Your task to perform on an android device: Open Wikipedia Image 0: 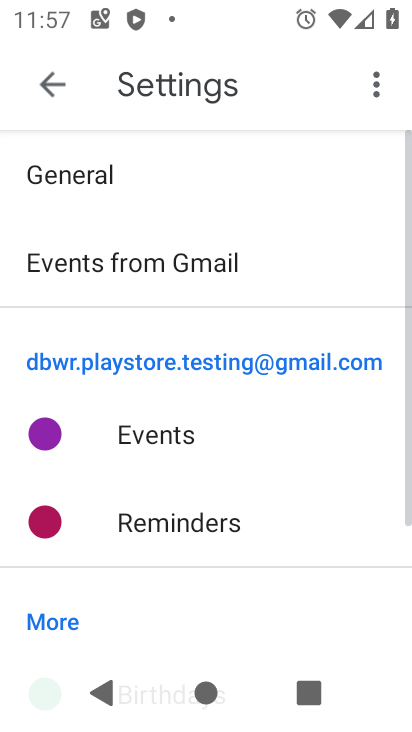
Step 0: press home button
Your task to perform on an android device: Open Wikipedia Image 1: 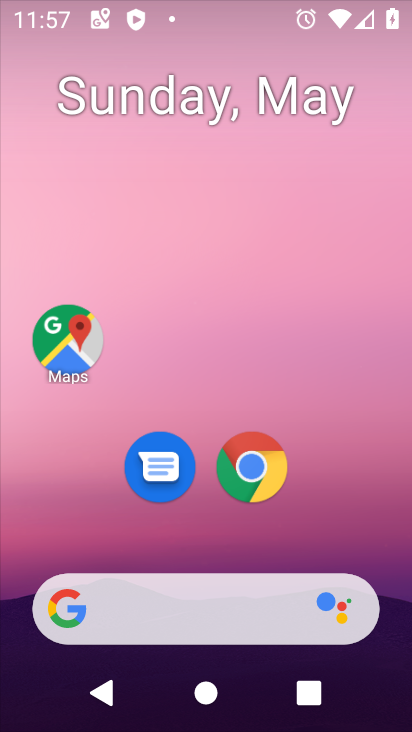
Step 1: drag from (394, 634) to (220, 58)
Your task to perform on an android device: Open Wikipedia Image 2: 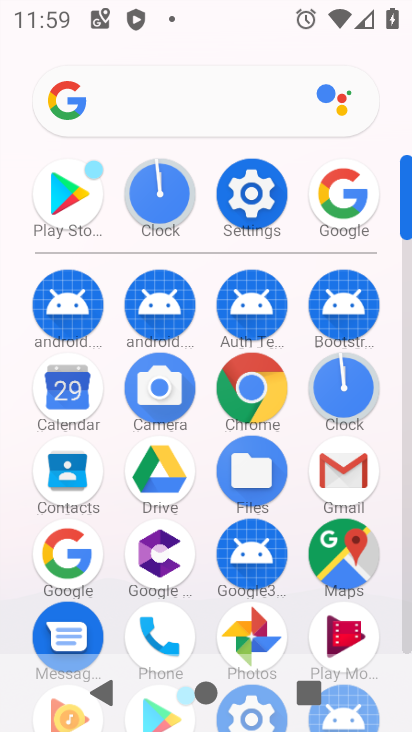
Step 2: click (69, 562)
Your task to perform on an android device: Open Wikipedia Image 3: 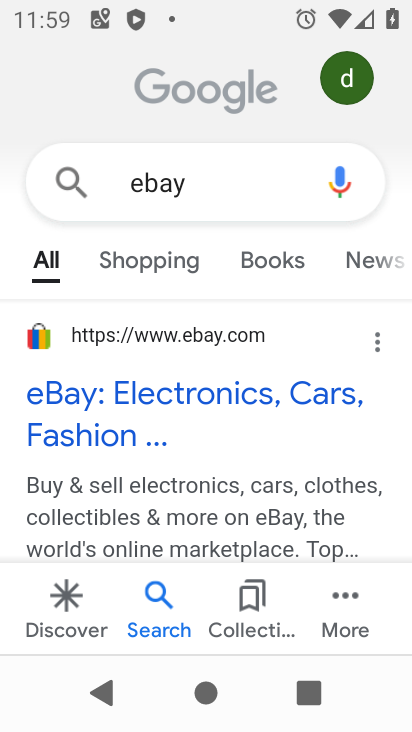
Step 3: press back button
Your task to perform on an android device: Open Wikipedia Image 4: 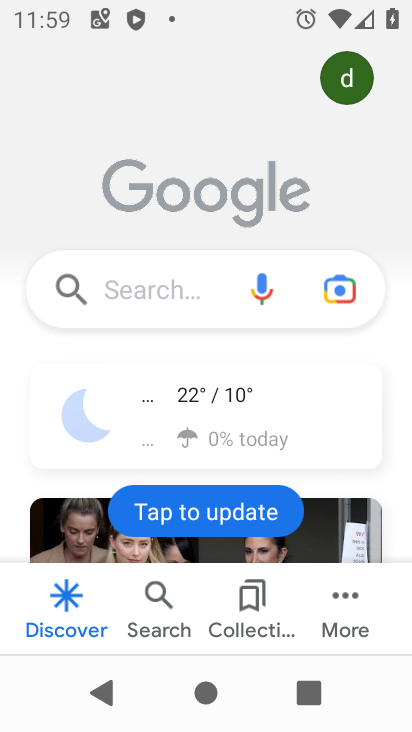
Step 4: click (152, 294)
Your task to perform on an android device: Open Wikipedia Image 5: 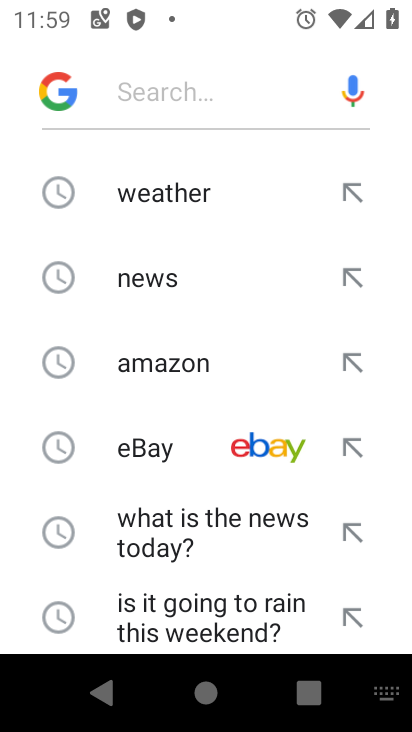
Step 5: drag from (127, 542) to (141, 50)
Your task to perform on an android device: Open Wikipedia Image 6: 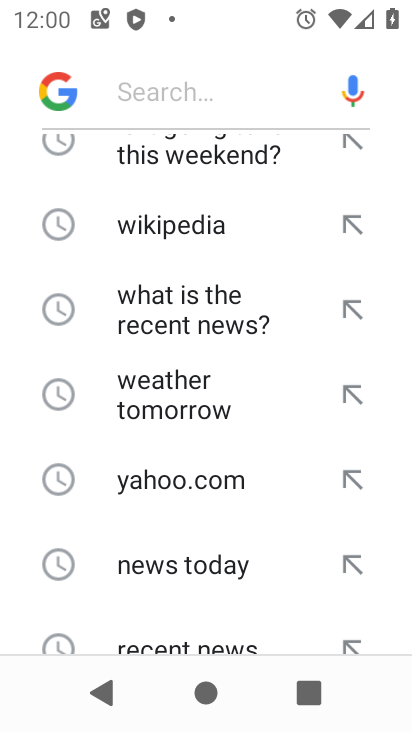
Step 6: click (171, 231)
Your task to perform on an android device: Open Wikipedia Image 7: 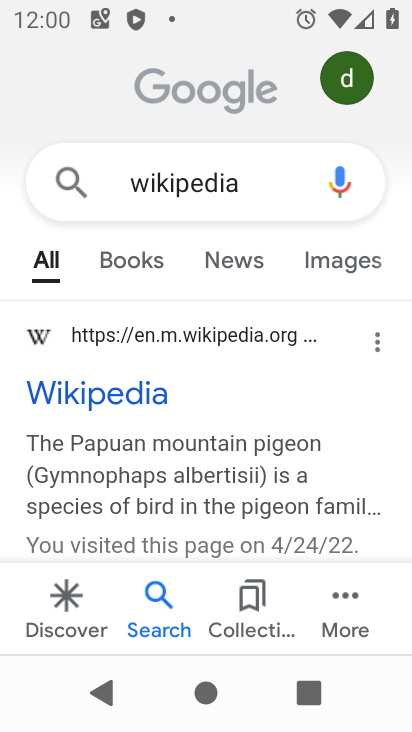
Step 7: task complete